Your task to perform on an android device: Go to Google Image 0: 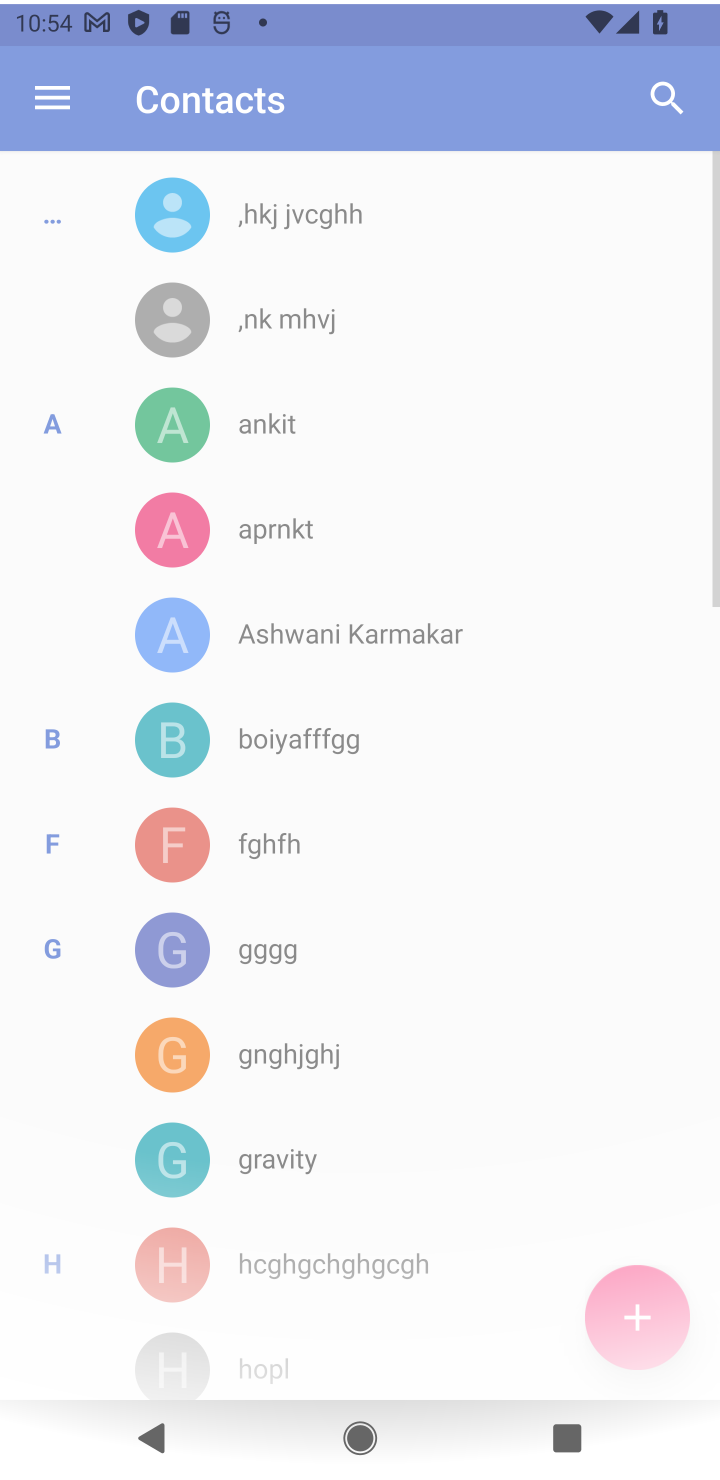
Step 0: press home button
Your task to perform on an android device: Go to Google Image 1: 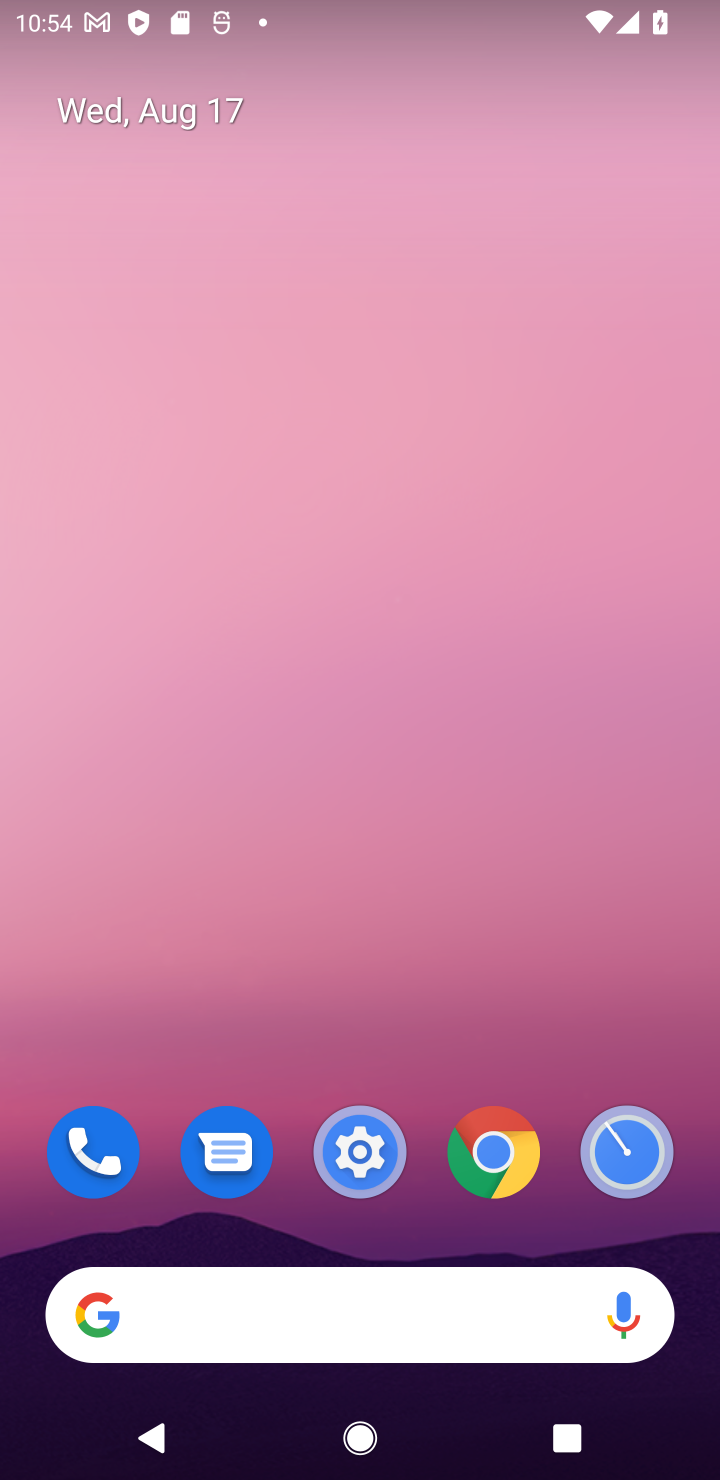
Step 1: drag from (666, 1244) to (299, 66)
Your task to perform on an android device: Go to Google Image 2: 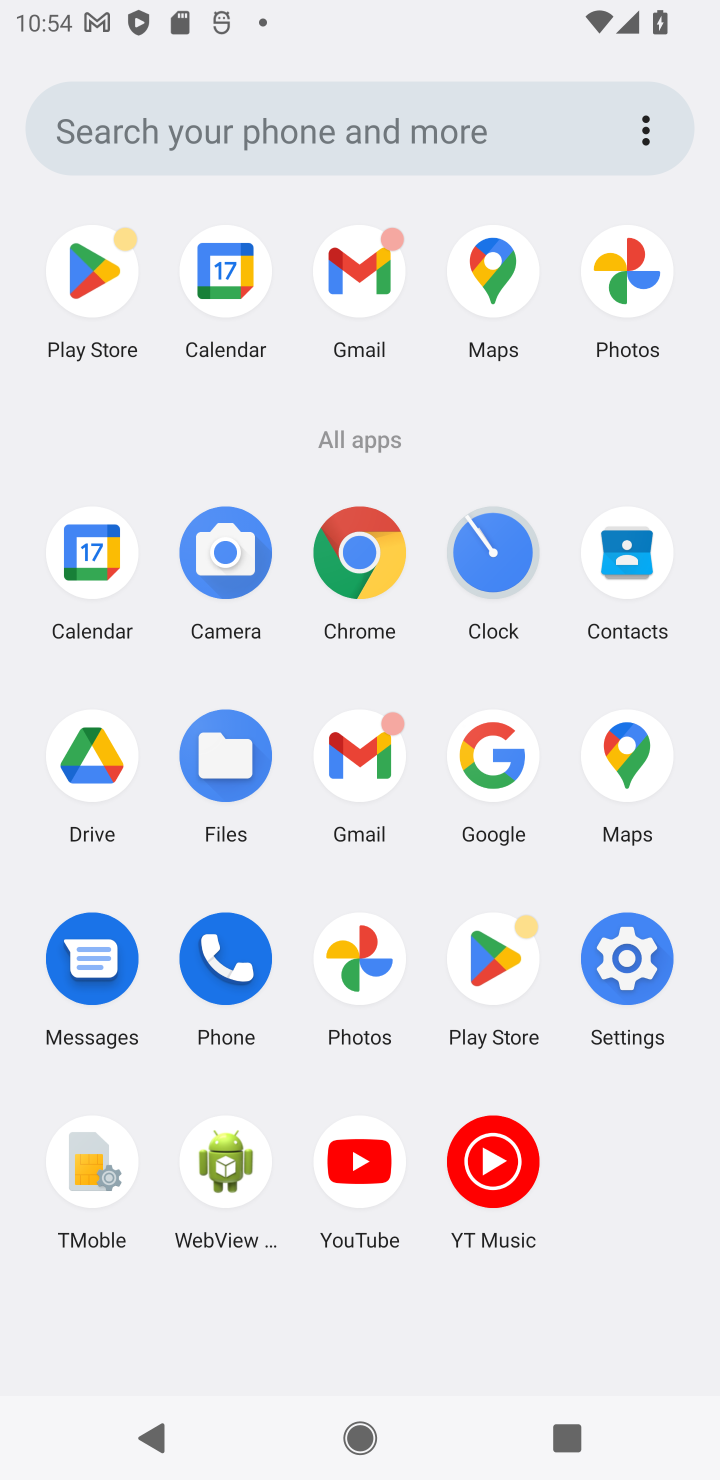
Step 2: click (498, 746)
Your task to perform on an android device: Go to Google Image 3: 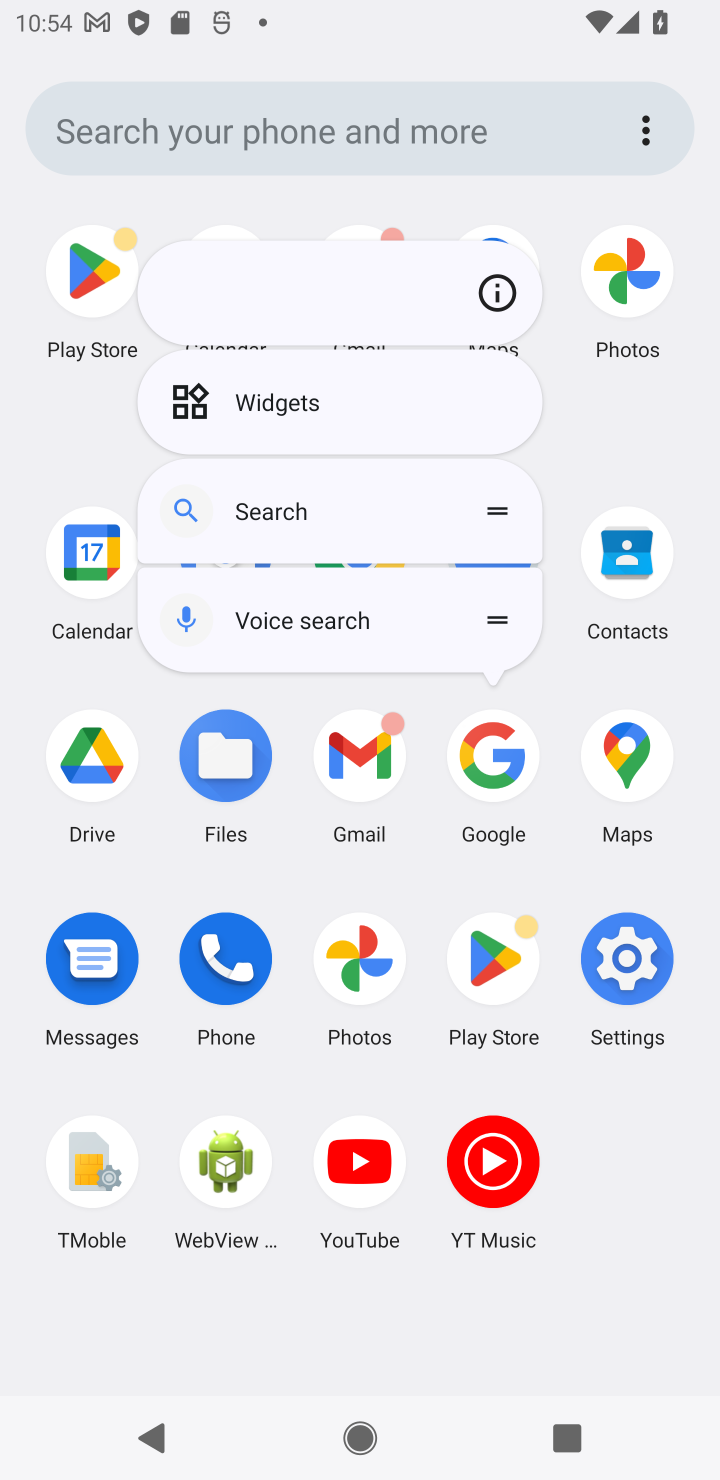
Step 3: click (498, 746)
Your task to perform on an android device: Go to Google Image 4: 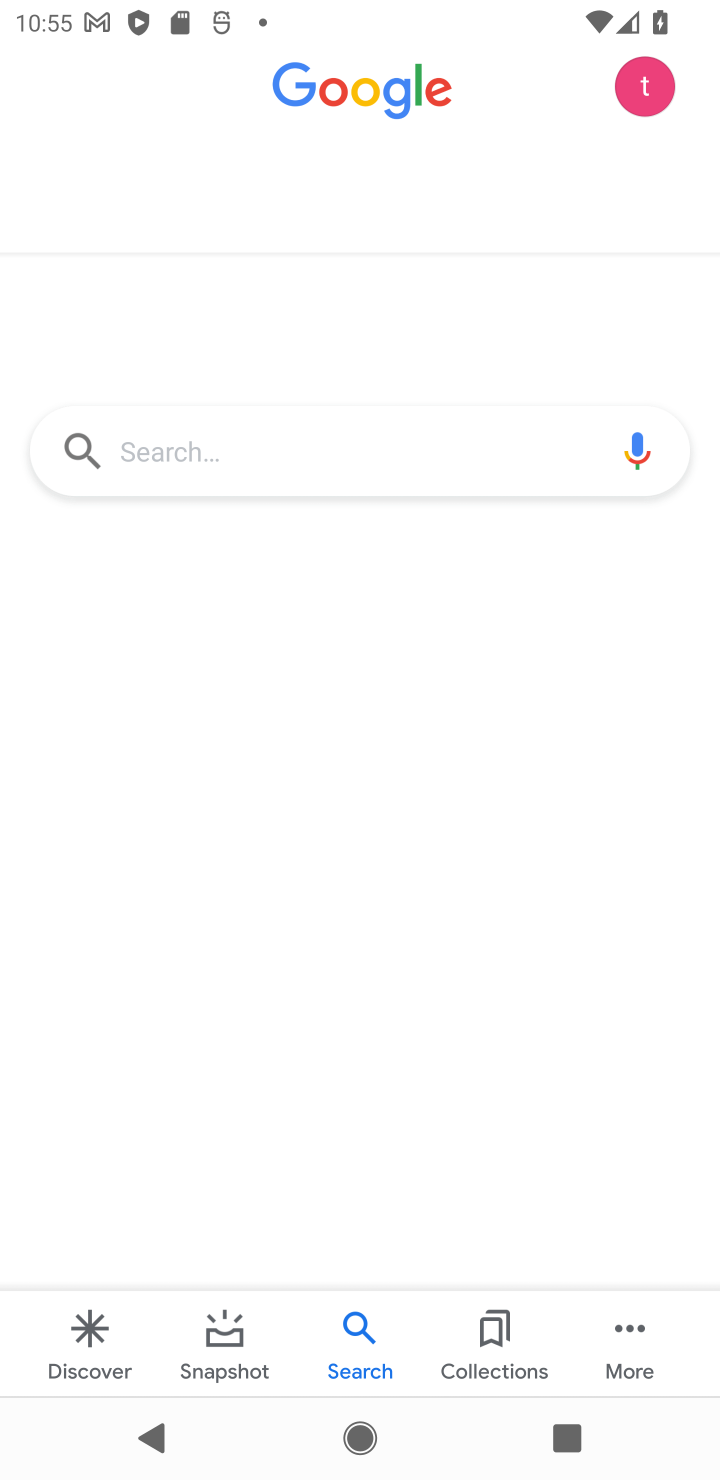
Step 4: task complete